Your task to perform on an android device: change notifications settings Image 0: 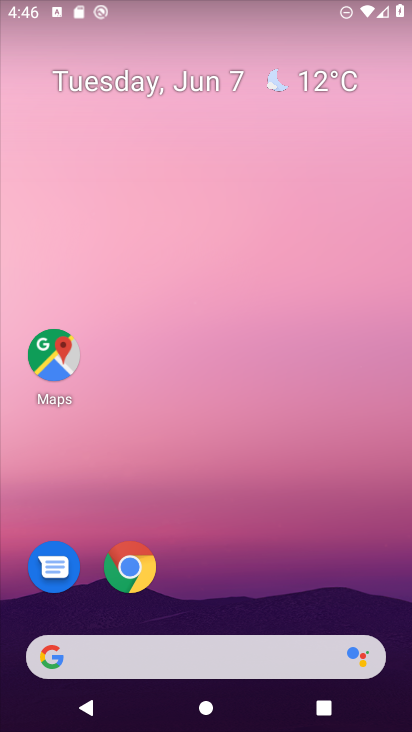
Step 0: drag from (291, 622) to (168, 13)
Your task to perform on an android device: change notifications settings Image 1: 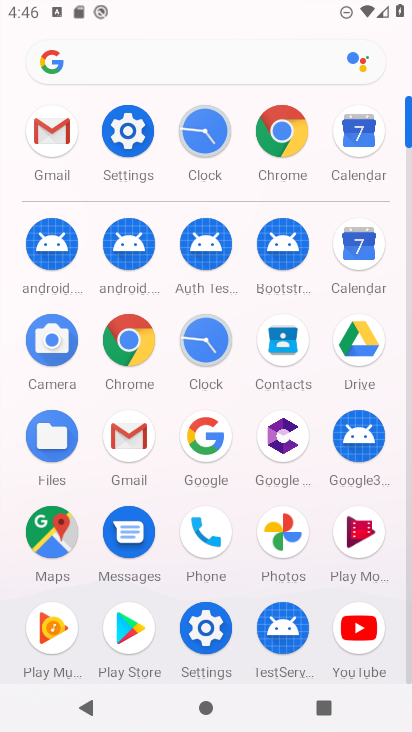
Step 1: click (122, 142)
Your task to perform on an android device: change notifications settings Image 2: 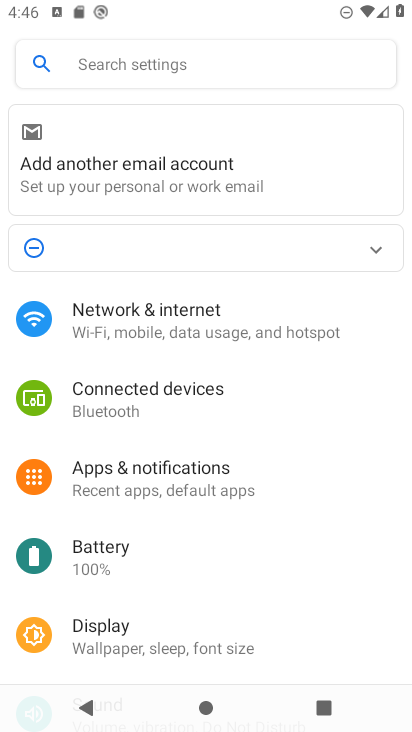
Step 2: click (165, 490)
Your task to perform on an android device: change notifications settings Image 3: 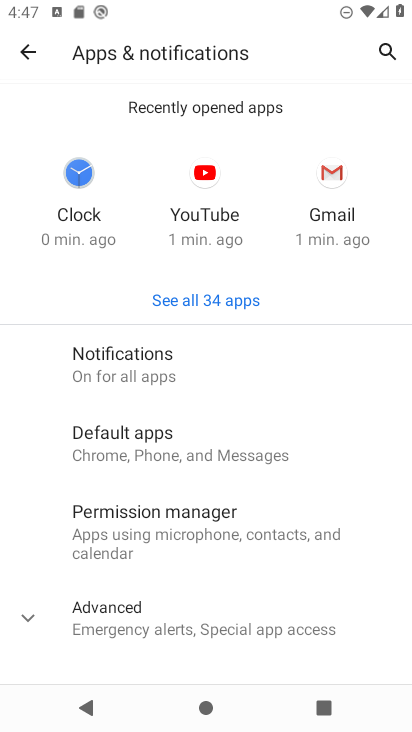
Step 3: click (171, 371)
Your task to perform on an android device: change notifications settings Image 4: 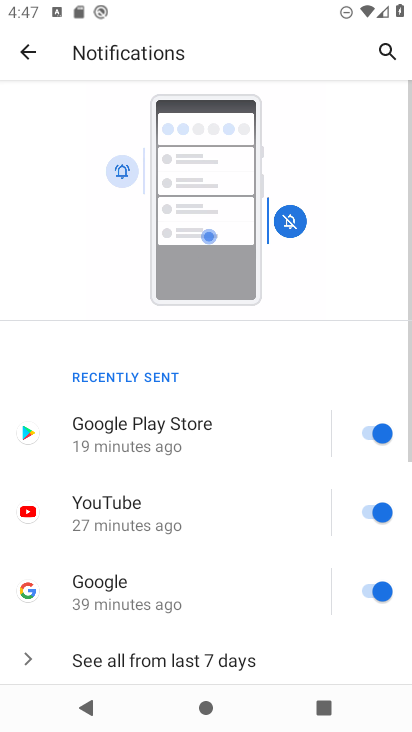
Step 4: task complete